Your task to perform on an android device: choose inbox layout in the gmail app Image 0: 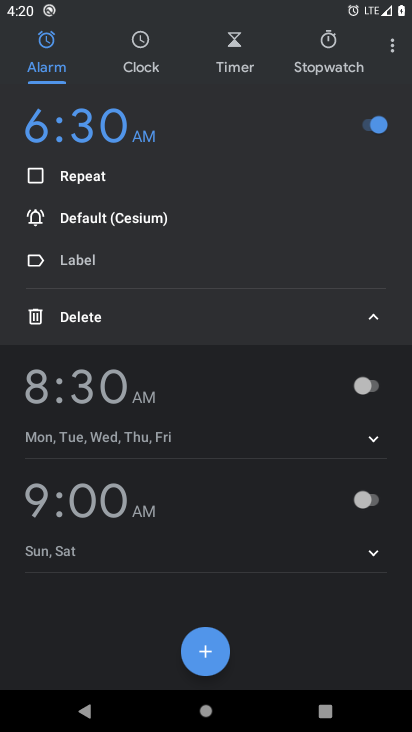
Step 0: press home button
Your task to perform on an android device: choose inbox layout in the gmail app Image 1: 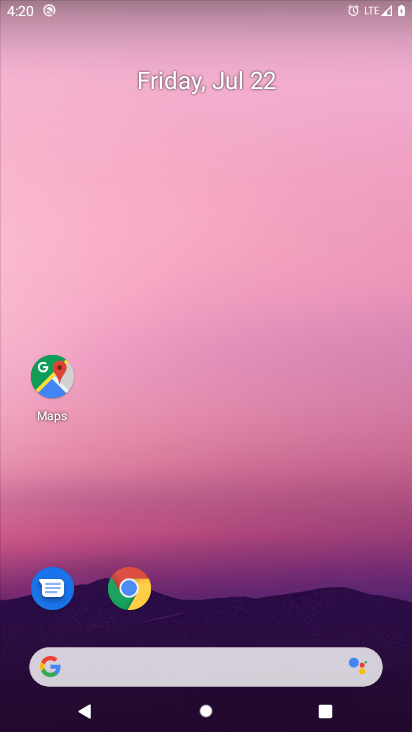
Step 1: drag from (231, 562) to (233, 136)
Your task to perform on an android device: choose inbox layout in the gmail app Image 2: 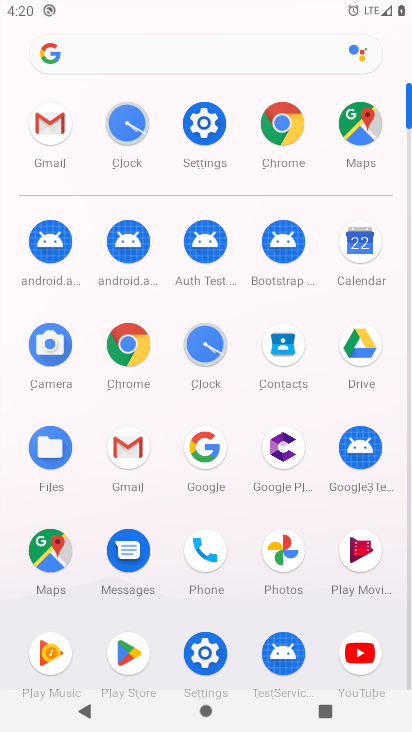
Step 2: click (142, 439)
Your task to perform on an android device: choose inbox layout in the gmail app Image 3: 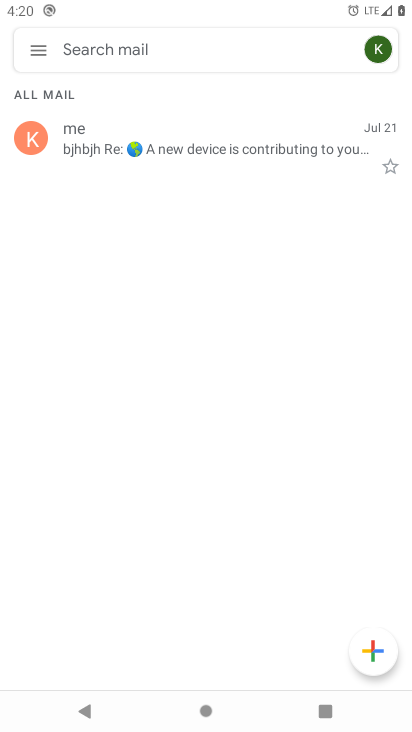
Step 3: click (36, 41)
Your task to perform on an android device: choose inbox layout in the gmail app Image 4: 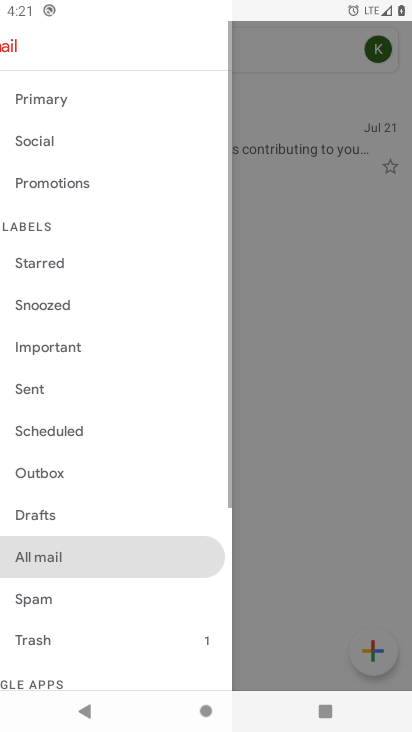
Step 4: click (36, 43)
Your task to perform on an android device: choose inbox layout in the gmail app Image 5: 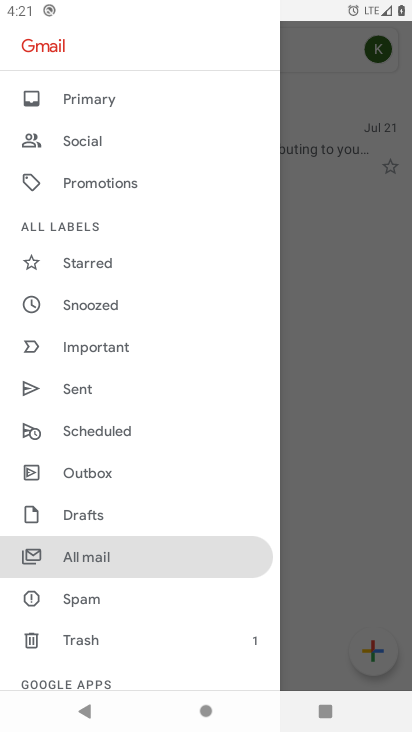
Step 5: drag from (103, 616) to (121, 316)
Your task to perform on an android device: choose inbox layout in the gmail app Image 6: 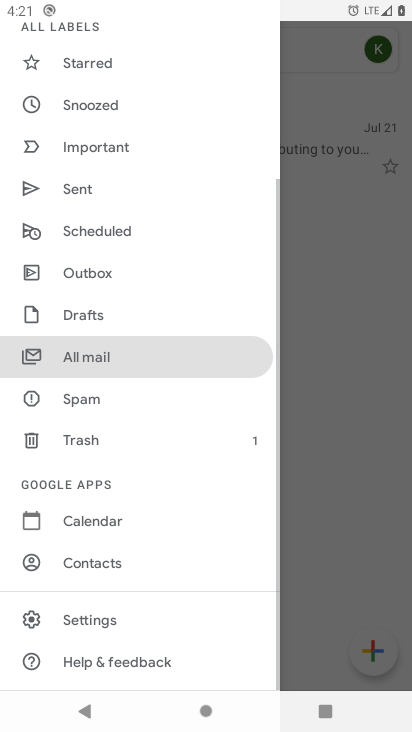
Step 6: click (90, 603)
Your task to perform on an android device: choose inbox layout in the gmail app Image 7: 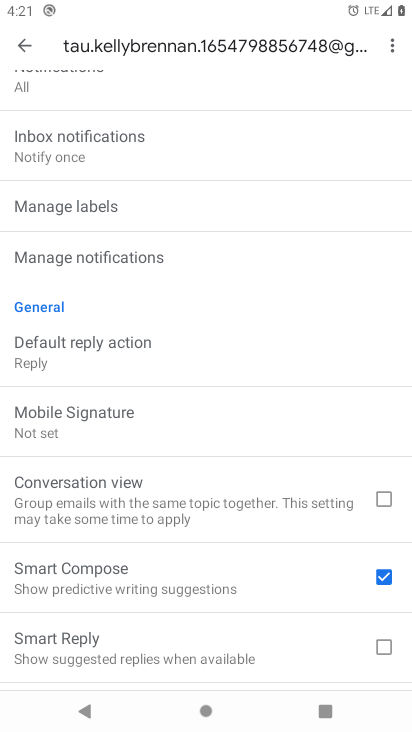
Step 7: drag from (100, 197) to (134, 512)
Your task to perform on an android device: choose inbox layout in the gmail app Image 8: 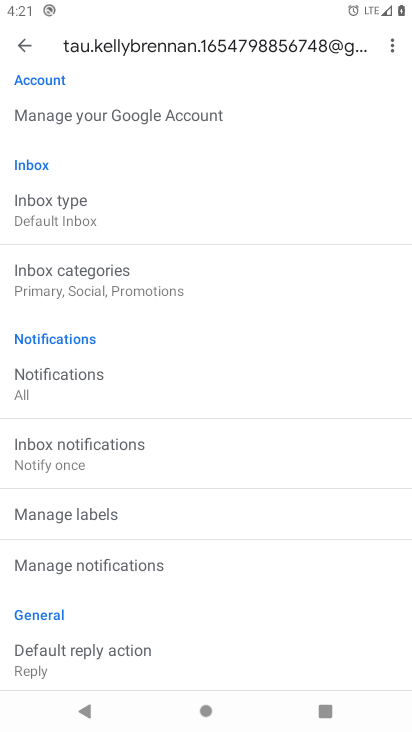
Step 8: click (84, 210)
Your task to perform on an android device: choose inbox layout in the gmail app Image 9: 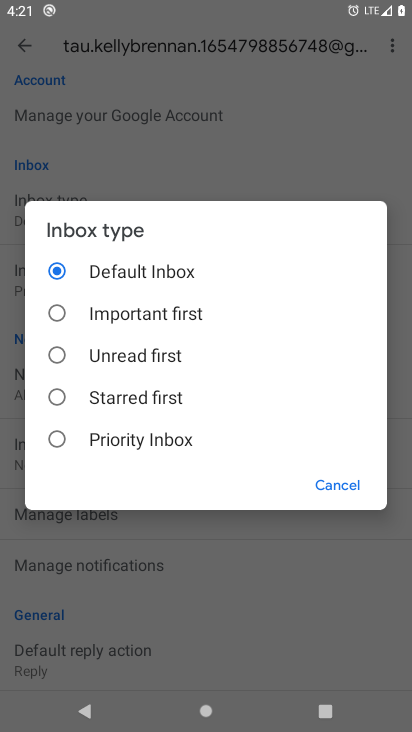
Step 9: click (137, 434)
Your task to perform on an android device: choose inbox layout in the gmail app Image 10: 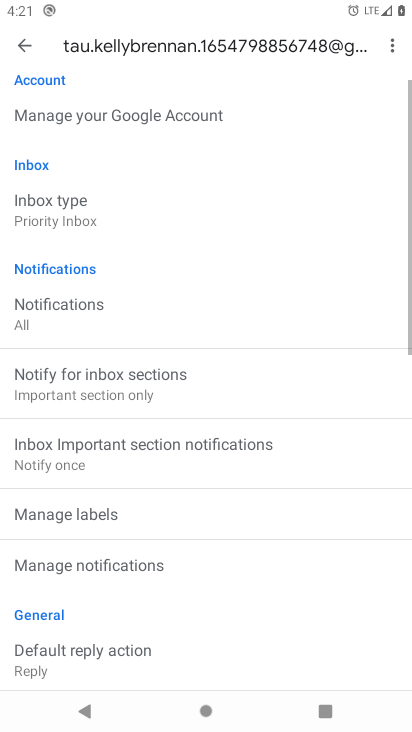
Step 10: task complete